Your task to perform on an android device: Show me popular videos on Youtube Image 0: 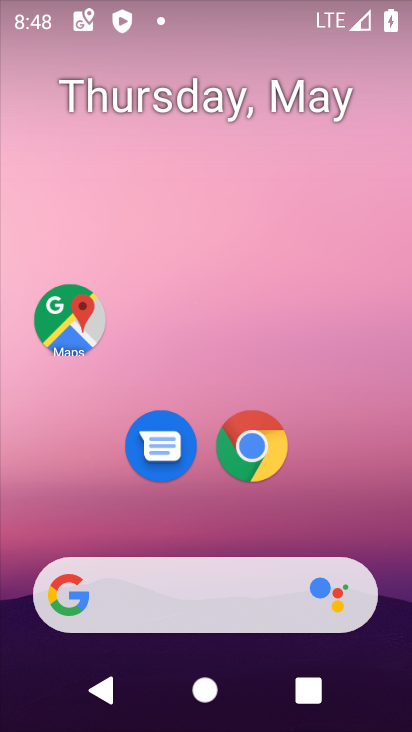
Step 0: drag from (395, 612) to (356, 165)
Your task to perform on an android device: Show me popular videos on Youtube Image 1: 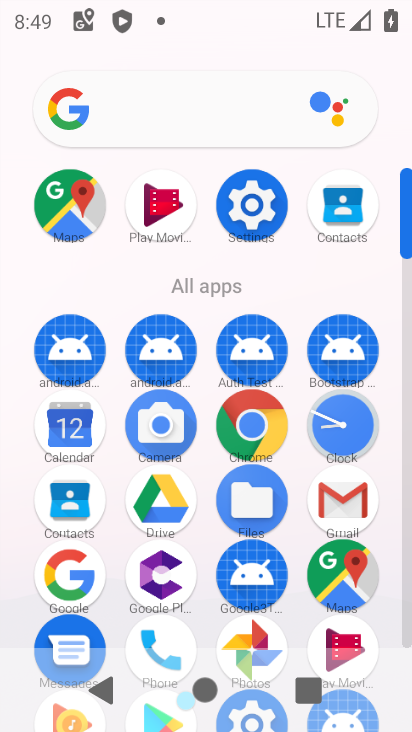
Step 1: click (409, 619)
Your task to perform on an android device: Show me popular videos on Youtube Image 2: 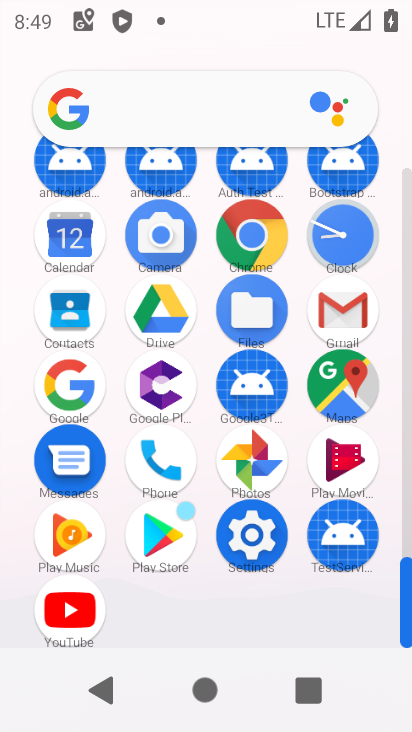
Step 2: click (65, 608)
Your task to perform on an android device: Show me popular videos on Youtube Image 3: 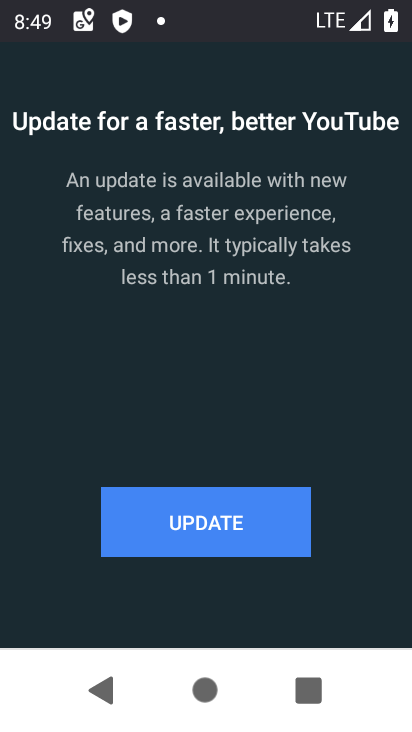
Step 3: click (197, 524)
Your task to perform on an android device: Show me popular videos on Youtube Image 4: 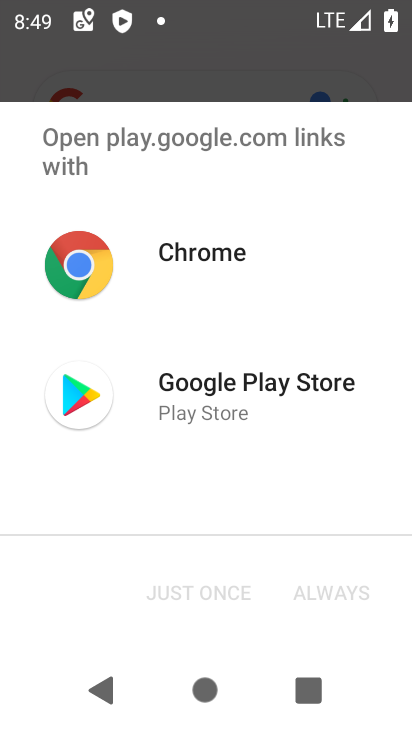
Step 4: click (210, 404)
Your task to perform on an android device: Show me popular videos on Youtube Image 5: 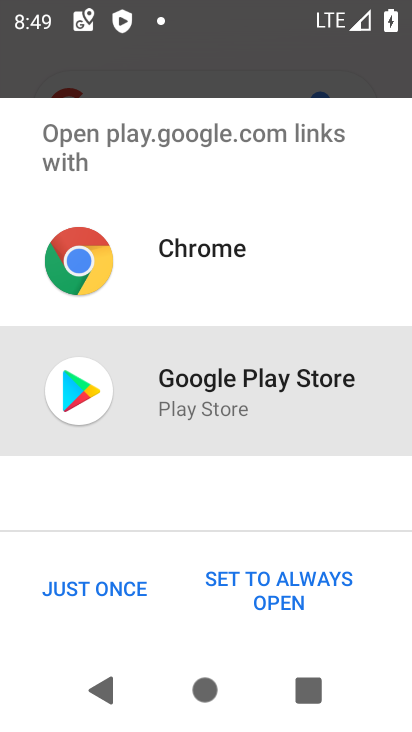
Step 5: click (81, 594)
Your task to perform on an android device: Show me popular videos on Youtube Image 6: 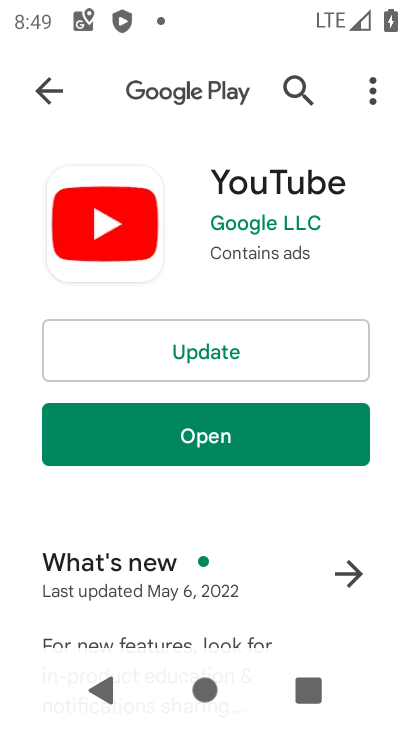
Step 6: click (210, 347)
Your task to perform on an android device: Show me popular videos on Youtube Image 7: 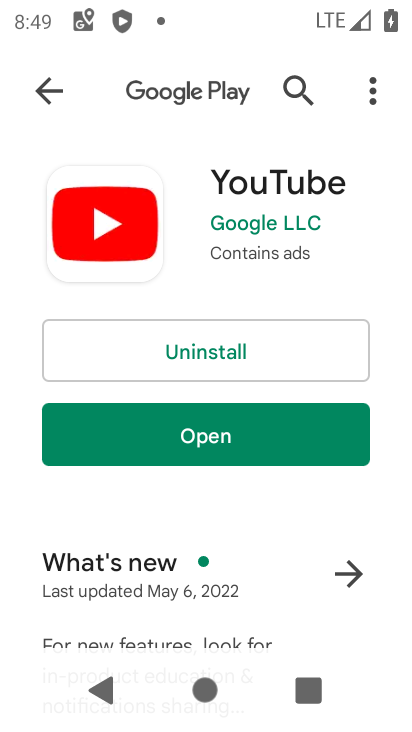
Step 7: click (218, 435)
Your task to perform on an android device: Show me popular videos on Youtube Image 8: 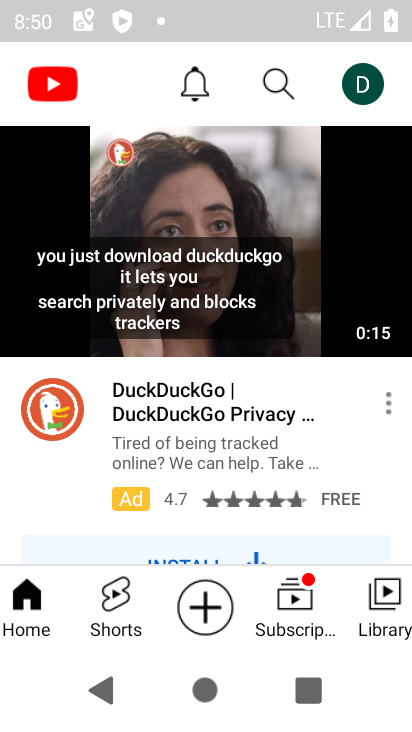
Step 8: task complete